Your task to perform on an android device: What's the weather? Image 0: 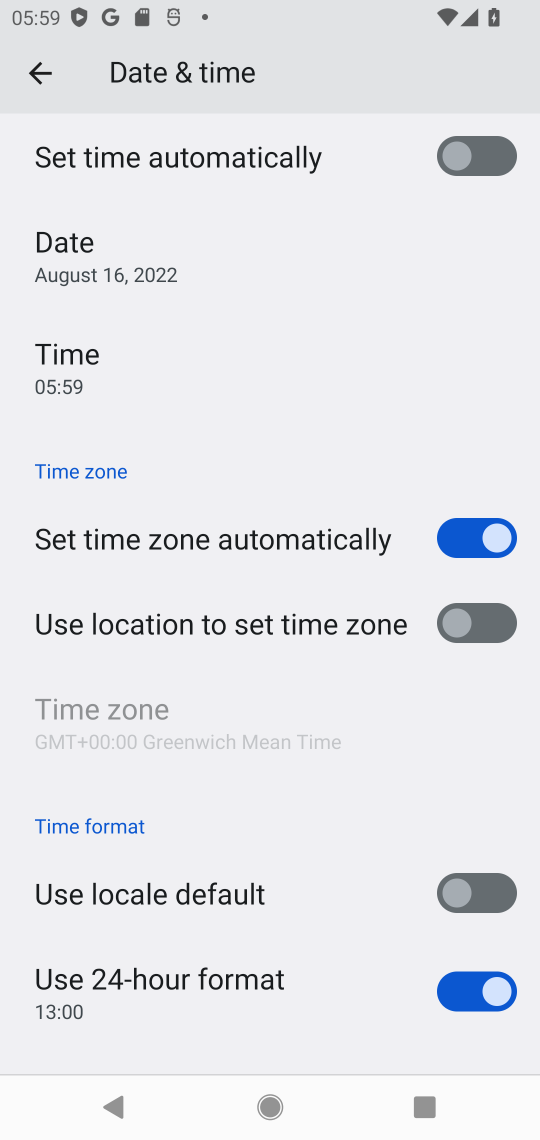
Step 0: press home button
Your task to perform on an android device: What's the weather? Image 1: 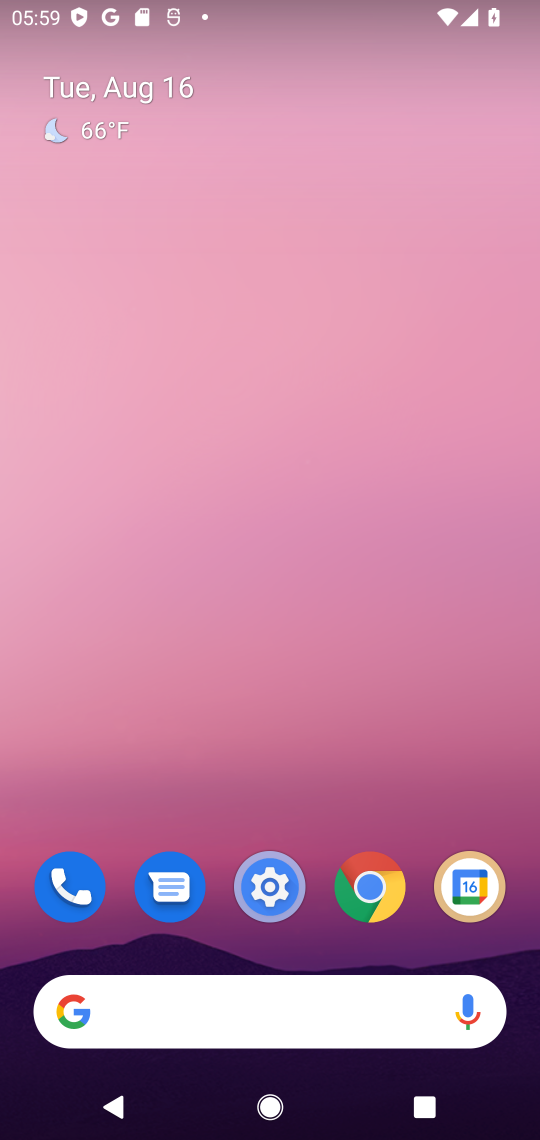
Step 1: click (90, 136)
Your task to perform on an android device: What's the weather? Image 2: 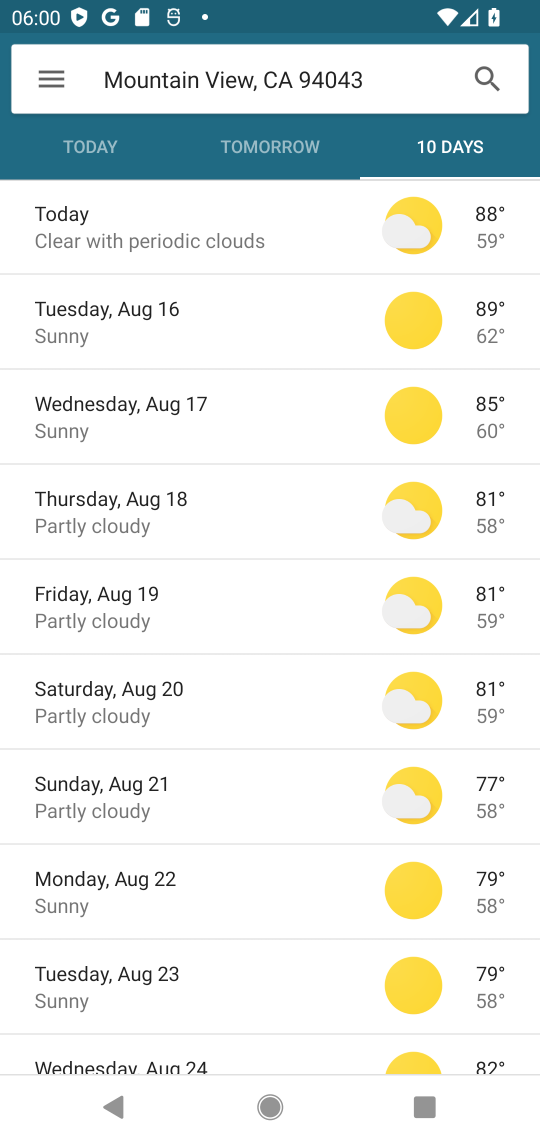
Step 2: click (86, 134)
Your task to perform on an android device: What's the weather? Image 3: 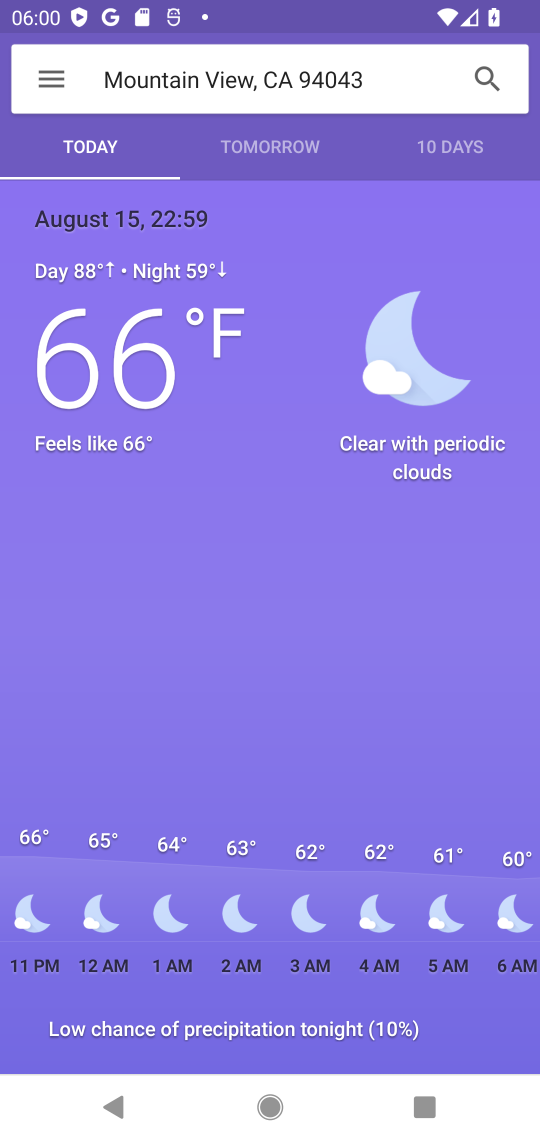
Step 3: task complete